Your task to perform on an android device: Empty the shopping cart on walmart. Add "energizer triple a" to the cart on walmart Image 0: 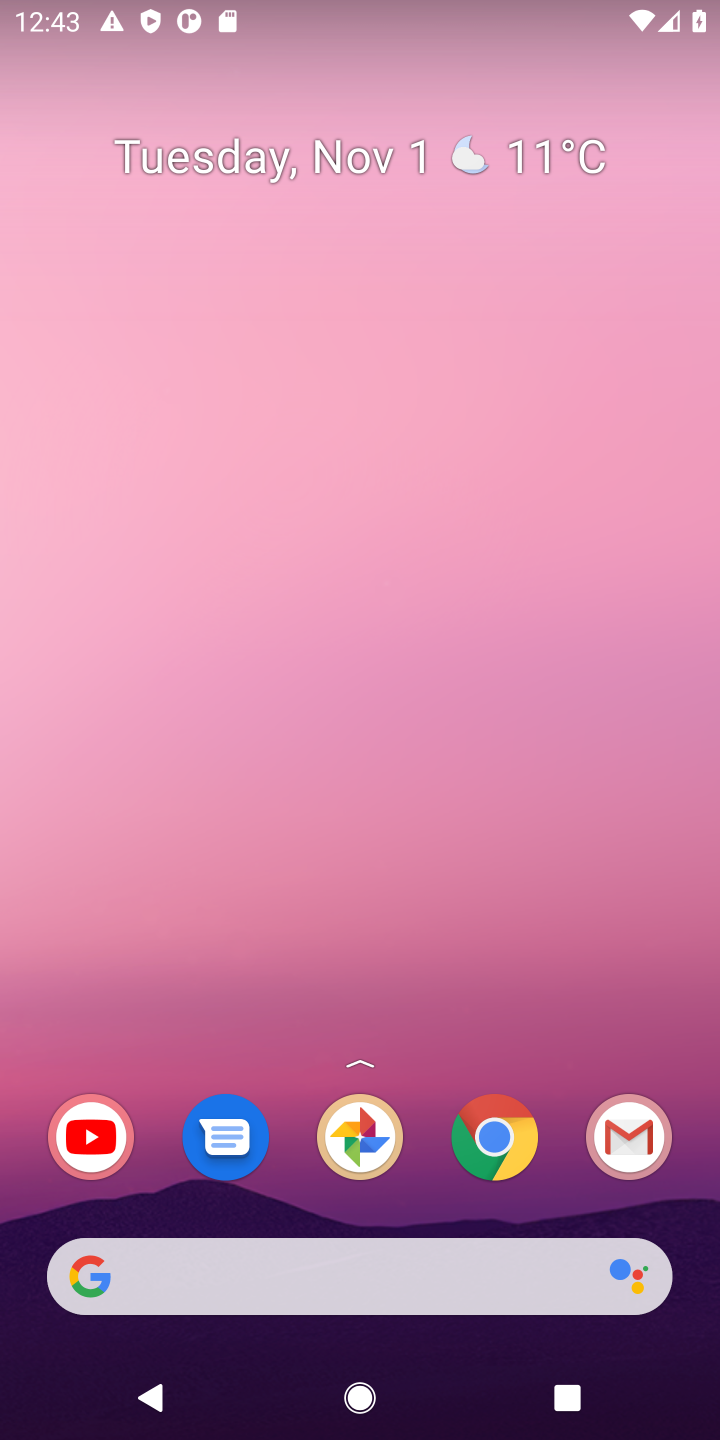
Step 0: click (470, 1121)
Your task to perform on an android device: Empty the shopping cart on walmart. Add "energizer triple a" to the cart on walmart Image 1: 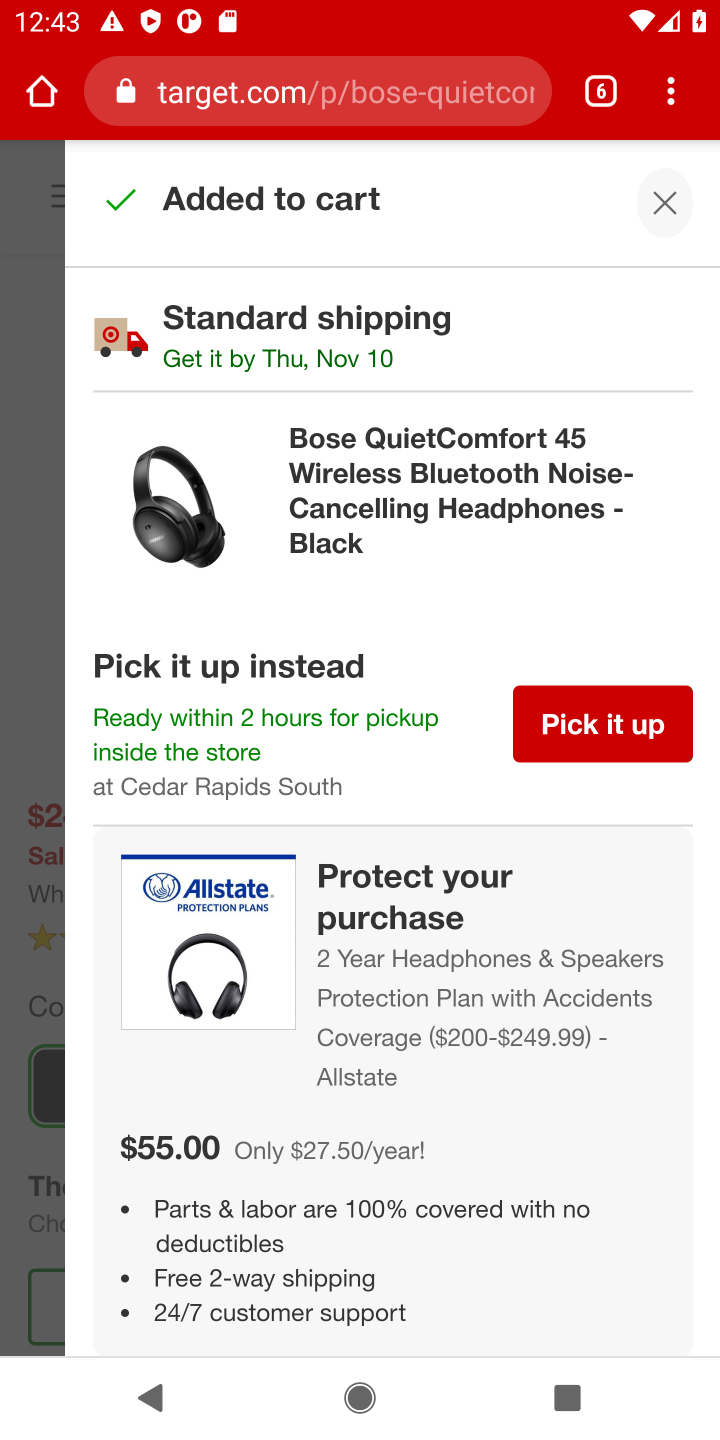
Step 1: click (596, 100)
Your task to perform on an android device: Empty the shopping cart on walmart. Add "energizer triple a" to the cart on walmart Image 2: 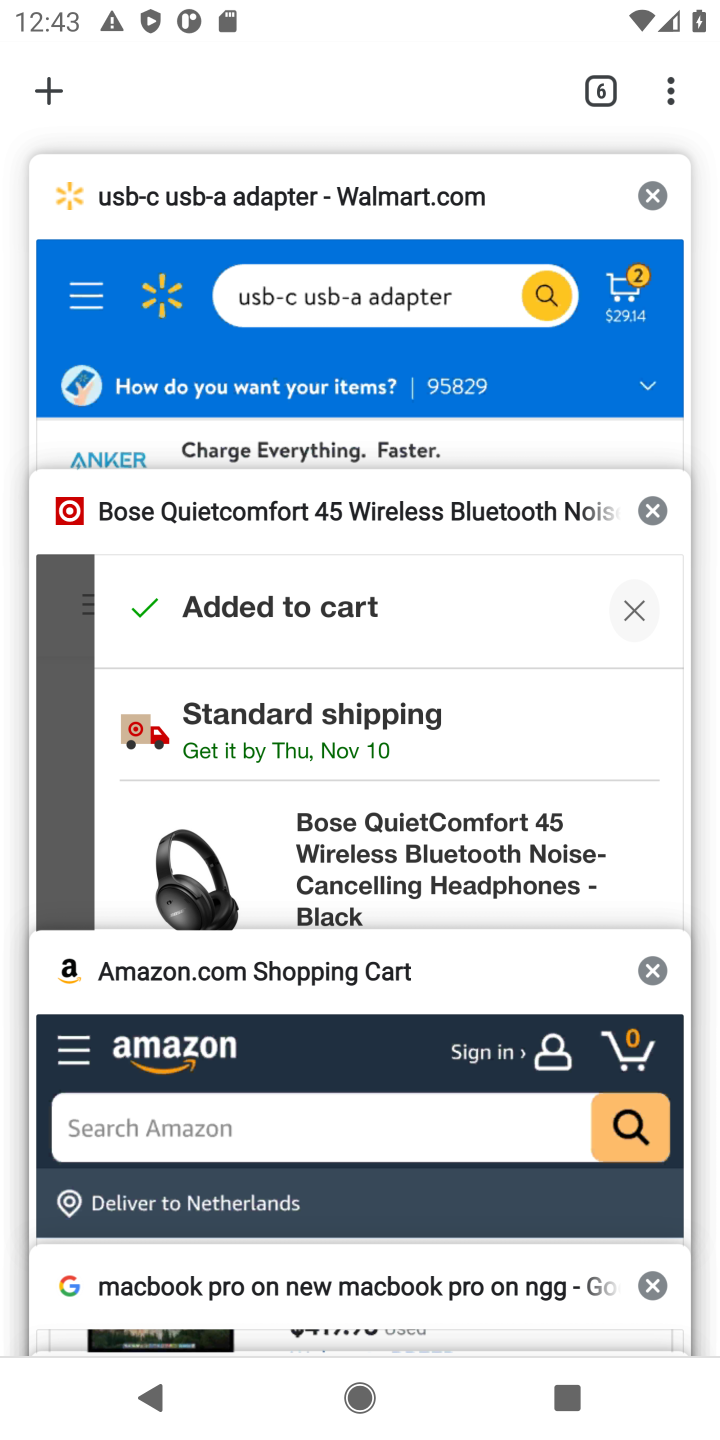
Step 2: click (236, 348)
Your task to perform on an android device: Empty the shopping cart on walmart. Add "energizer triple a" to the cart on walmart Image 3: 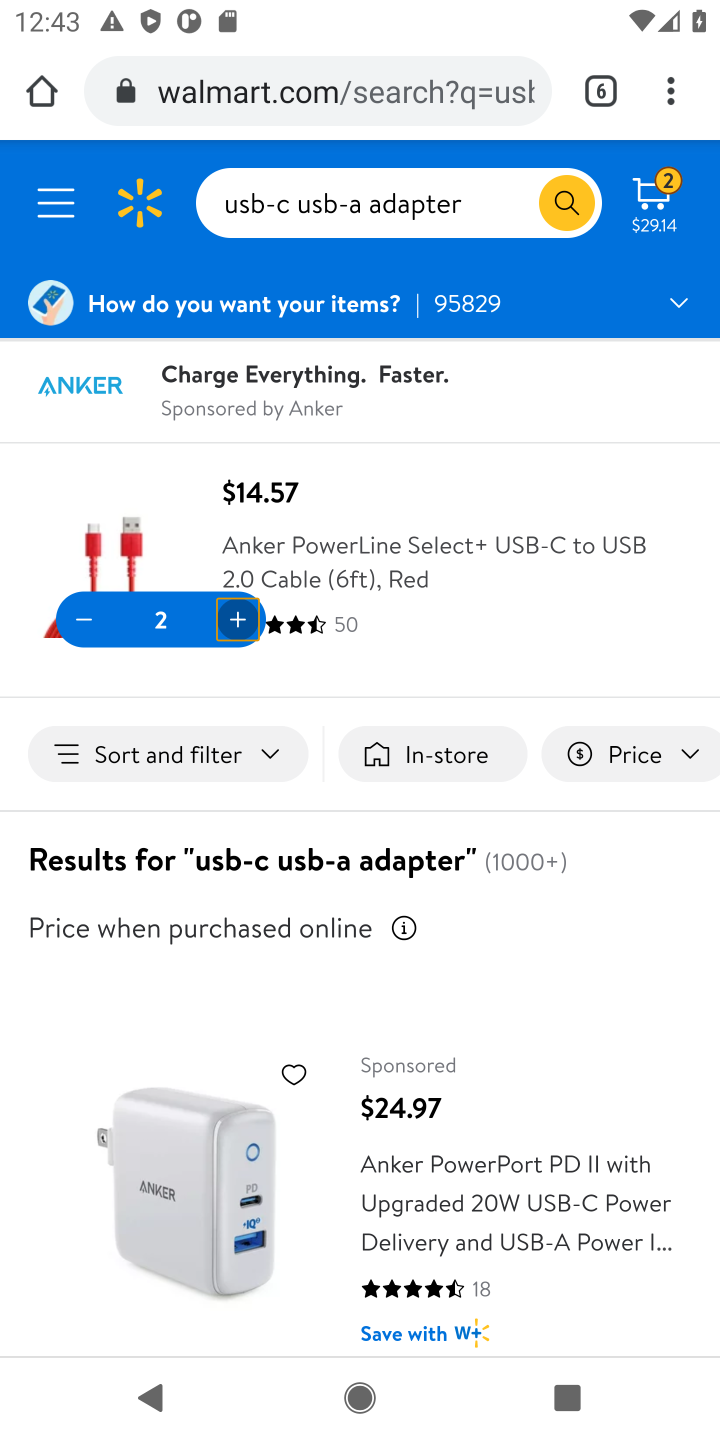
Step 3: click (450, 202)
Your task to perform on an android device: Empty the shopping cart on walmart. Add "energizer triple a" to the cart on walmart Image 4: 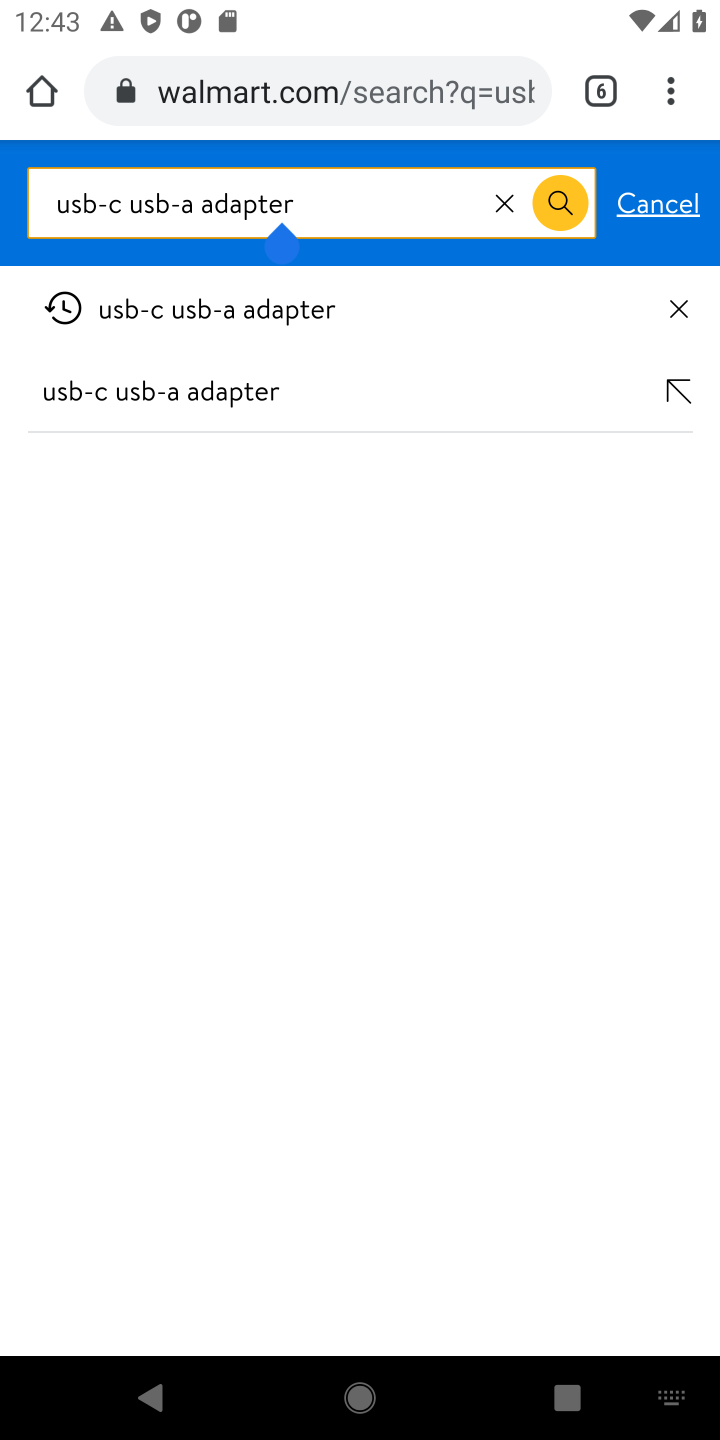
Step 4: click (499, 210)
Your task to perform on an android device: Empty the shopping cart on walmart. Add "energizer triple a" to the cart on walmart Image 5: 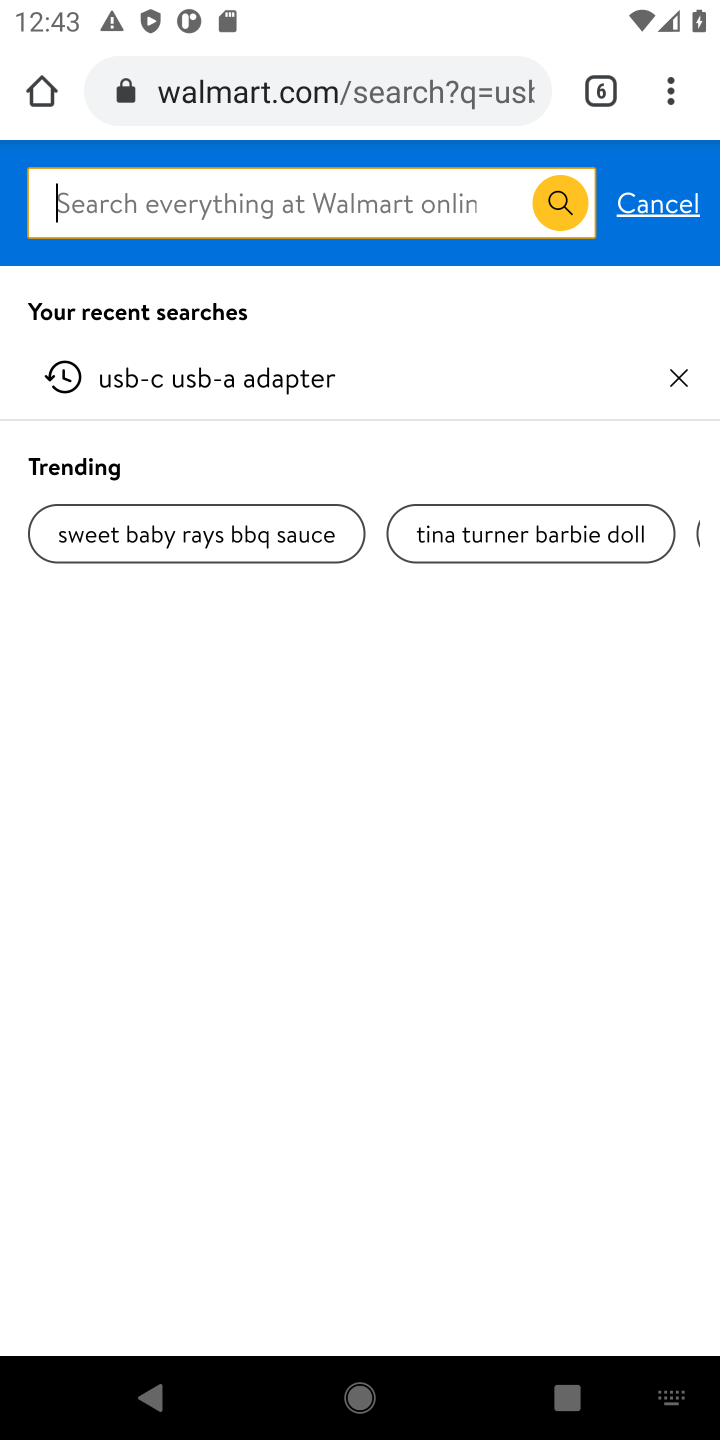
Step 5: type "energizer triple a"
Your task to perform on an android device: Empty the shopping cart on walmart. Add "energizer triple a" to the cart on walmart Image 6: 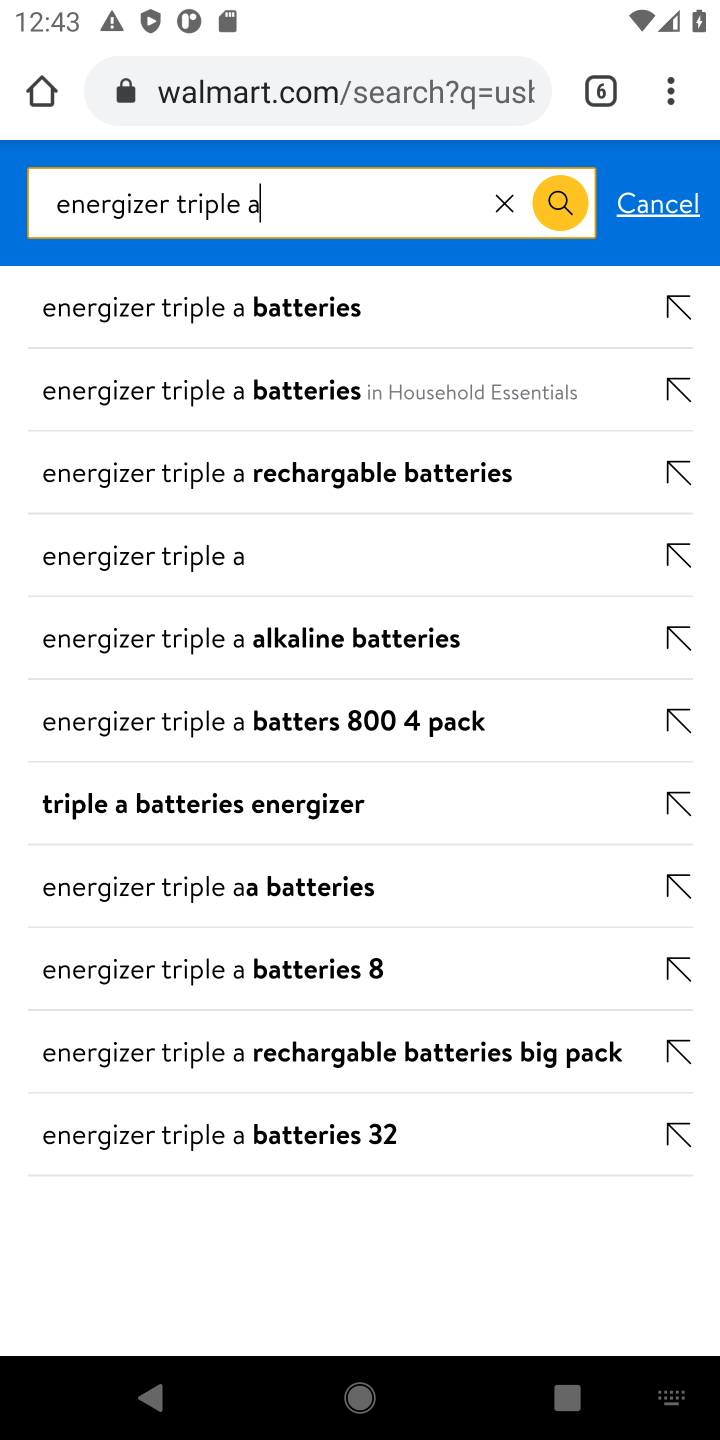
Step 6: click (324, 380)
Your task to perform on an android device: Empty the shopping cart on walmart. Add "energizer triple a" to the cart on walmart Image 7: 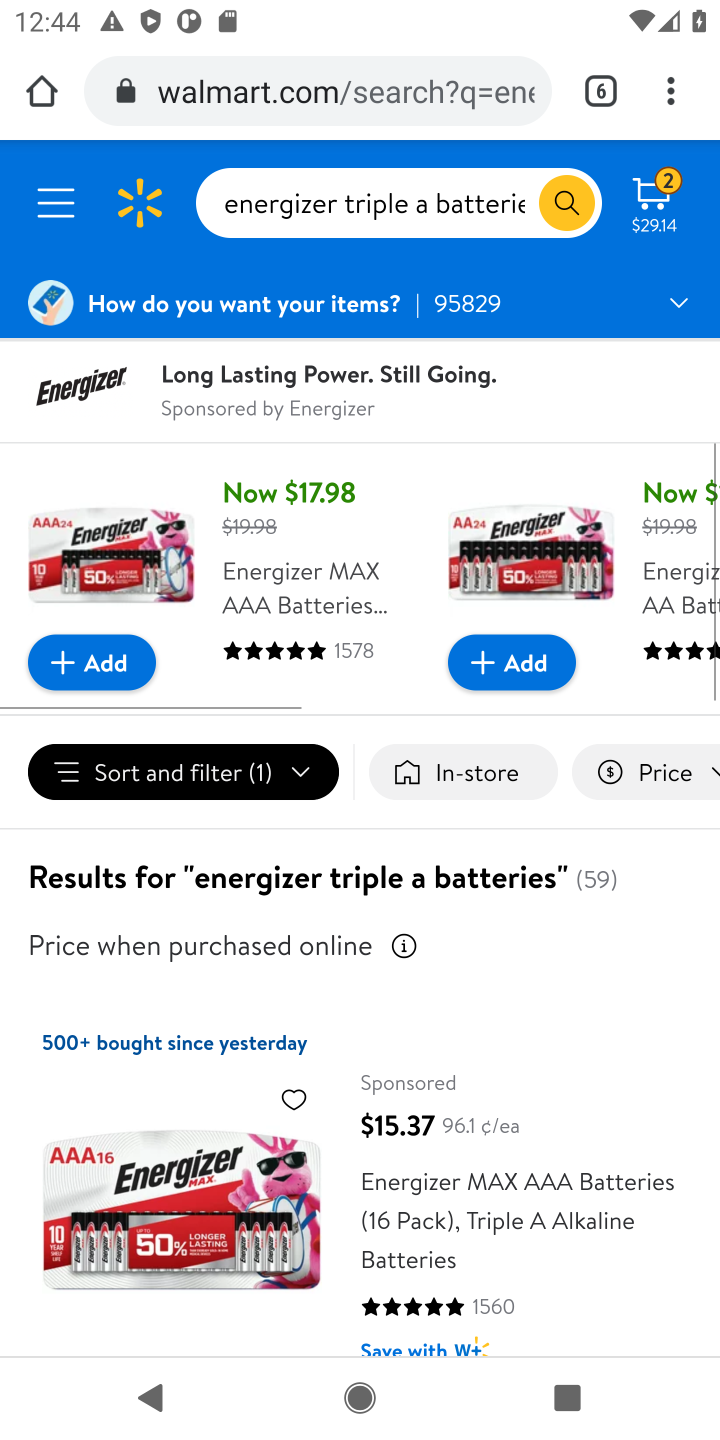
Step 7: click (108, 662)
Your task to perform on an android device: Empty the shopping cart on walmart. Add "energizer triple a" to the cart on walmart Image 8: 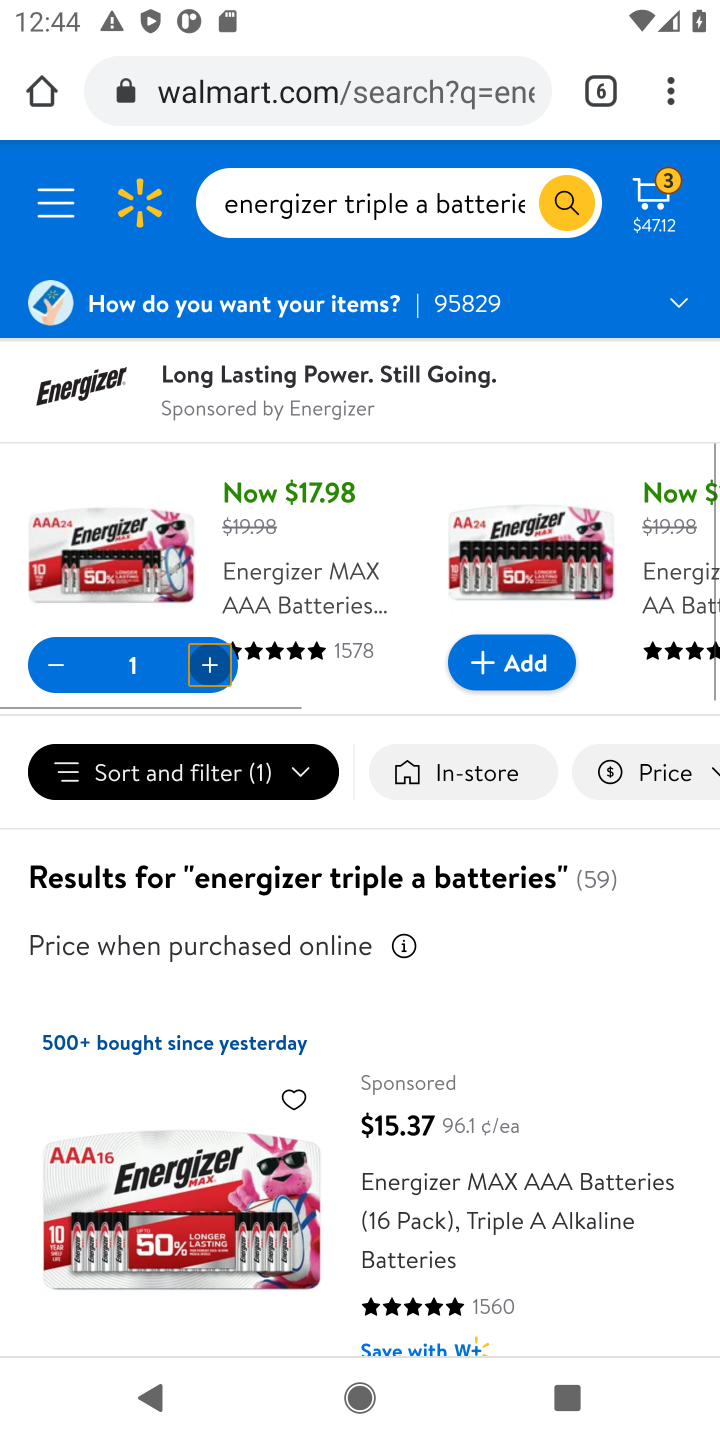
Step 8: task complete